Your task to perform on an android device: open the mobile data screen to see how much data has been used Image 0: 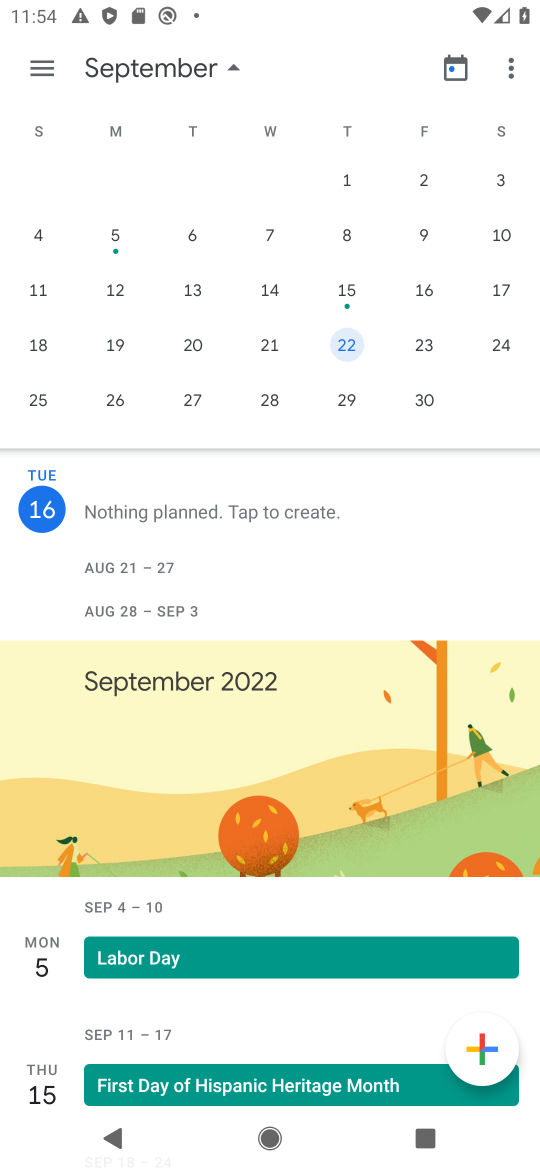
Step 0: drag from (283, 15) to (395, 1014)
Your task to perform on an android device: open the mobile data screen to see how much data has been used Image 1: 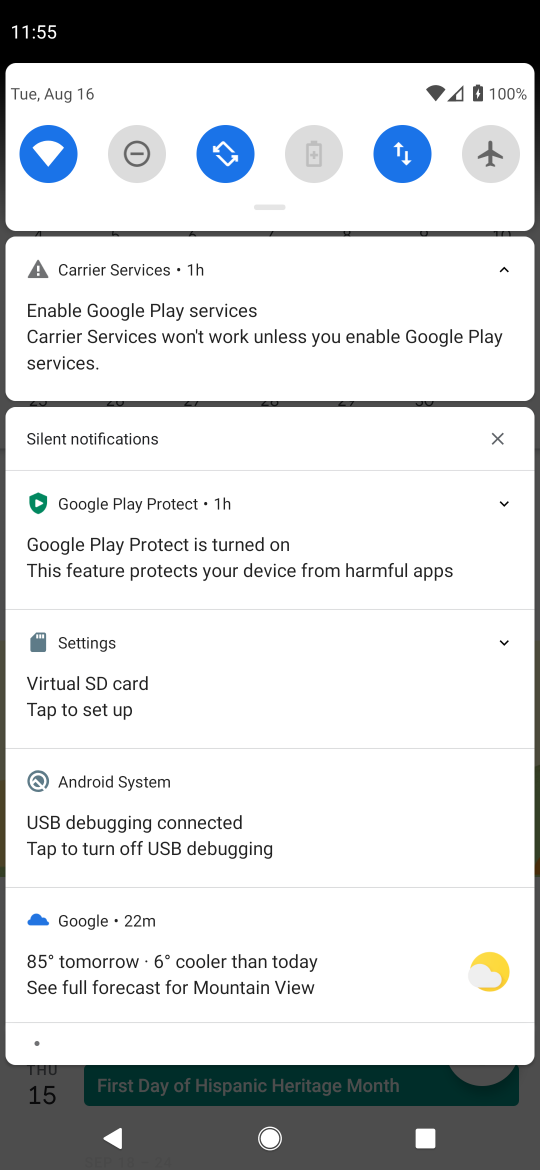
Step 1: click (418, 169)
Your task to perform on an android device: open the mobile data screen to see how much data has been used Image 2: 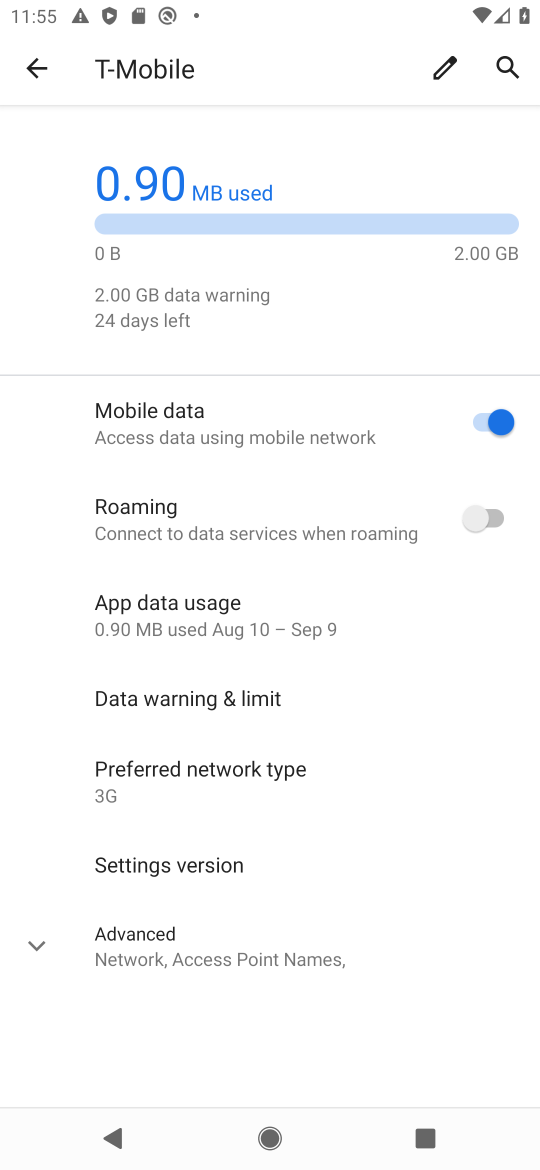
Step 2: task complete